Your task to perform on an android device: check the backup settings in the google photos Image 0: 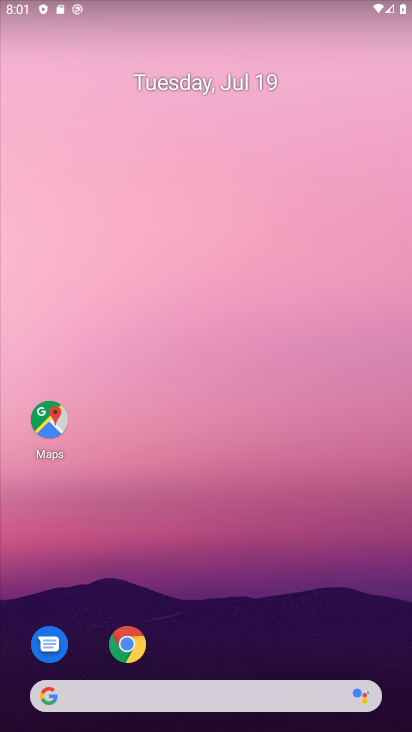
Step 0: drag from (194, 663) to (261, 139)
Your task to perform on an android device: check the backup settings in the google photos Image 1: 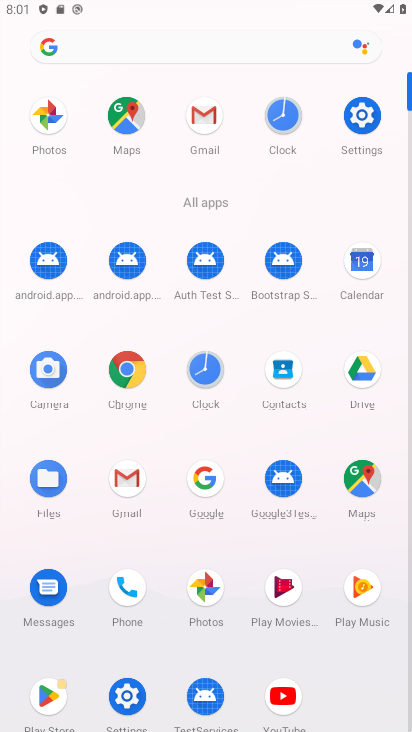
Step 1: click (207, 595)
Your task to perform on an android device: check the backup settings in the google photos Image 2: 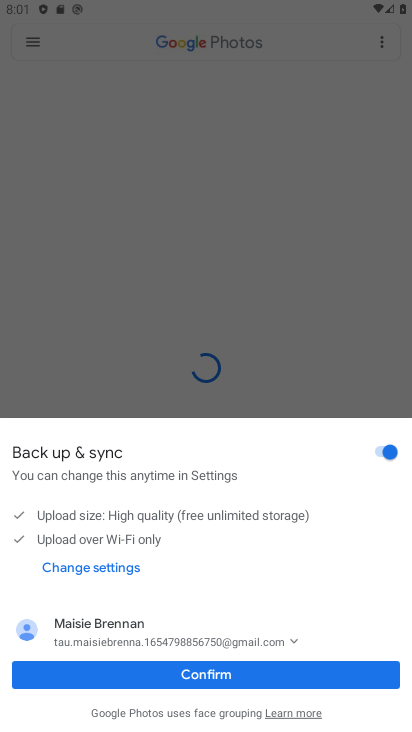
Step 2: click (243, 672)
Your task to perform on an android device: check the backup settings in the google photos Image 3: 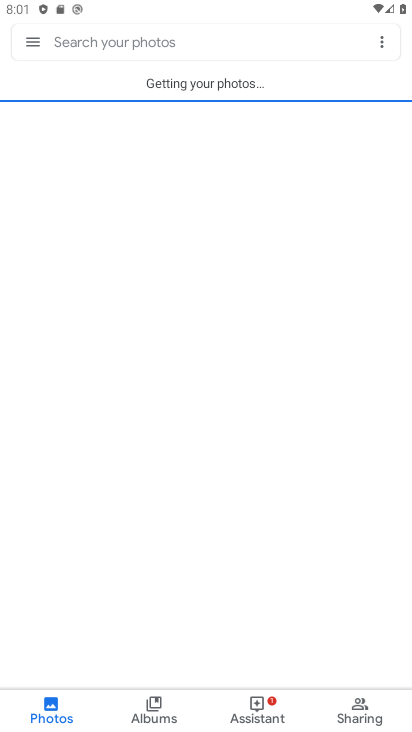
Step 3: click (52, 47)
Your task to perform on an android device: check the backup settings in the google photos Image 4: 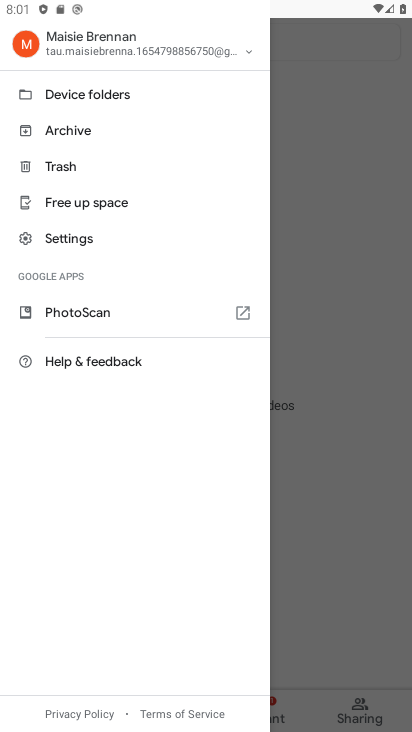
Step 4: click (114, 238)
Your task to perform on an android device: check the backup settings in the google photos Image 5: 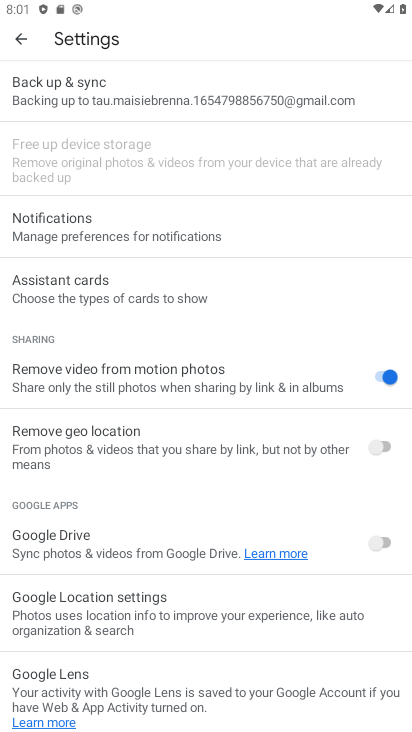
Step 5: click (132, 120)
Your task to perform on an android device: check the backup settings in the google photos Image 6: 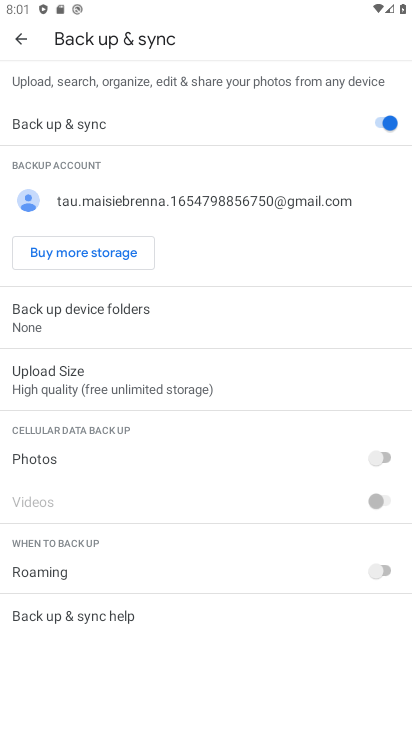
Step 6: task complete